Your task to perform on an android device: Do I have any events this weekend? Image 0: 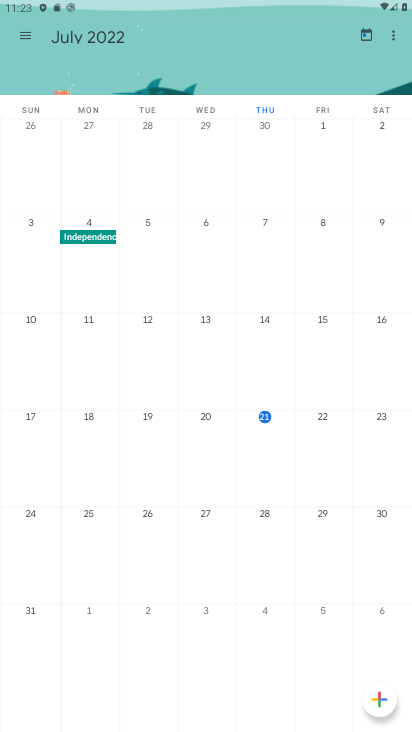
Step 0: task complete